Your task to perform on an android device: See recent photos Image 0: 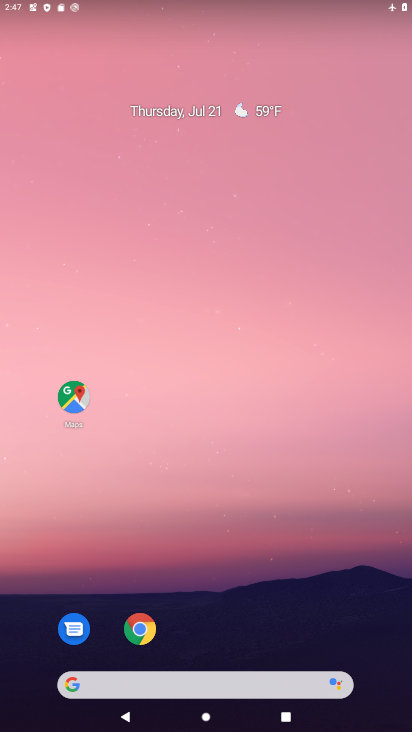
Step 0: drag from (234, 726) to (235, 150)
Your task to perform on an android device: See recent photos Image 1: 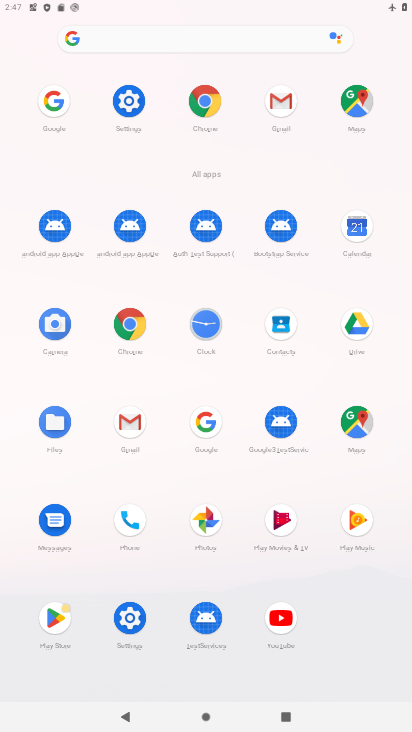
Step 1: click (208, 520)
Your task to perform on an android device: See recent photos Image 2: 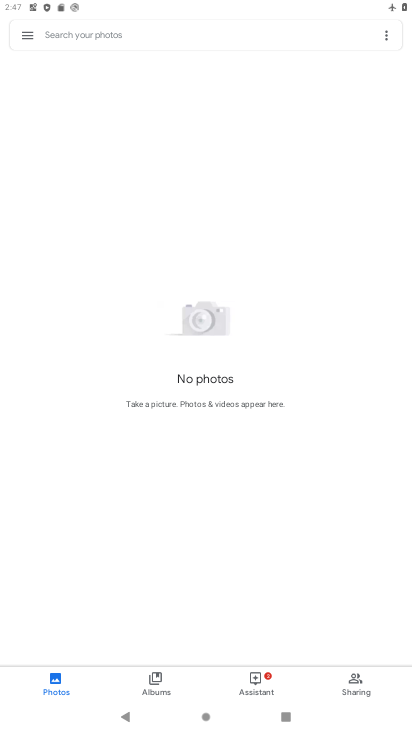
Step 2: task complete